Your task to perform on an android device: change your default location settings in chrome Image 0: 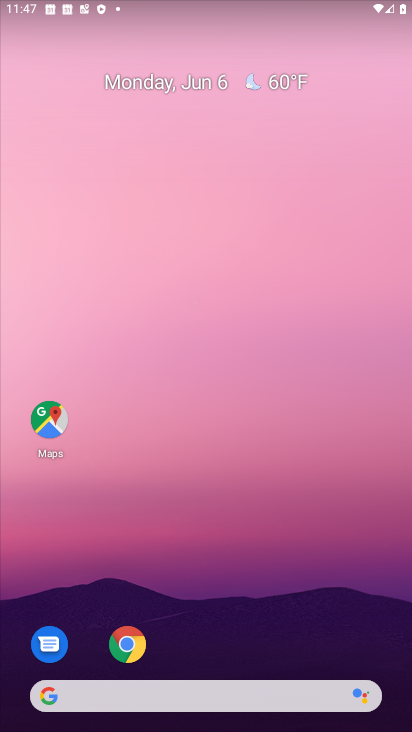
Step 0: drag from (205, 612) to (289, 28)
Your task to perform on an android device: change your default location settings in chrome Image 1: 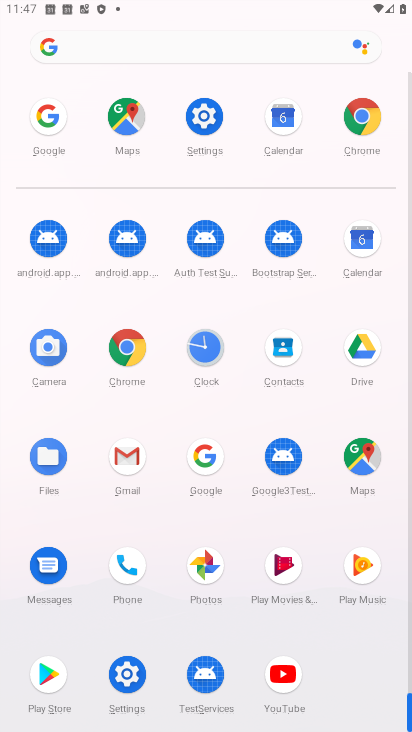
Step 1: click (365, 129)
Your task to perform on an android device: change your default location settings in chrome Image 2: 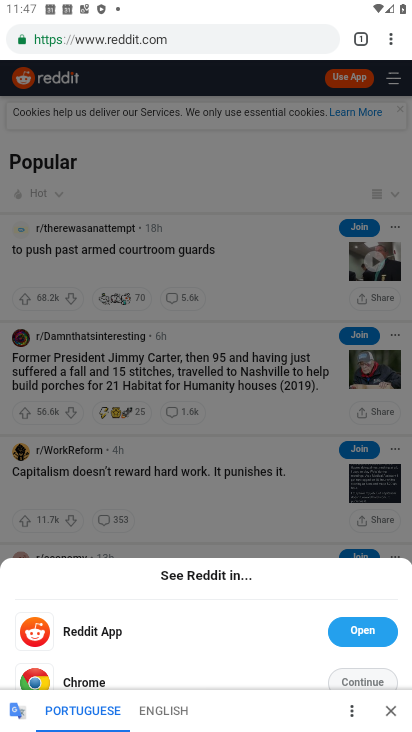
Step 2: click (386, 44)
Your task to perform on an android device: change your default location settings in chrome Image 3: 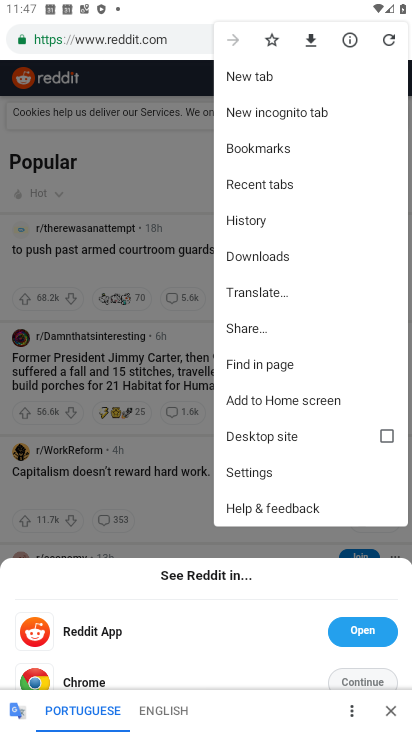
Step 3: click (262, 476)
Your task to perform on an android device: change your default location settings in chrome Image 4: 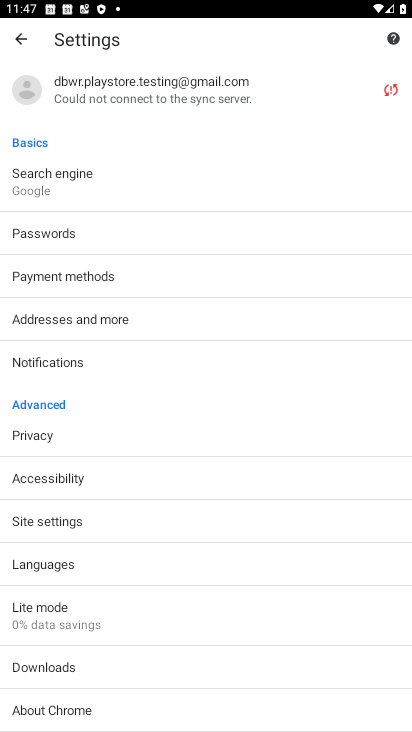
Step 4: click (89, 518)
Your task to perform on an android device: change your default location settings in chrome Image 5: 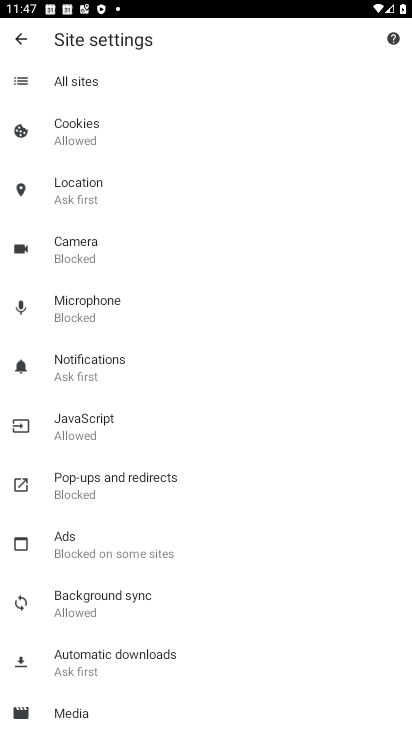
Step 5: click (65, 184)
Your task to perform on an android device: change your default location settings in chrome Image 6: 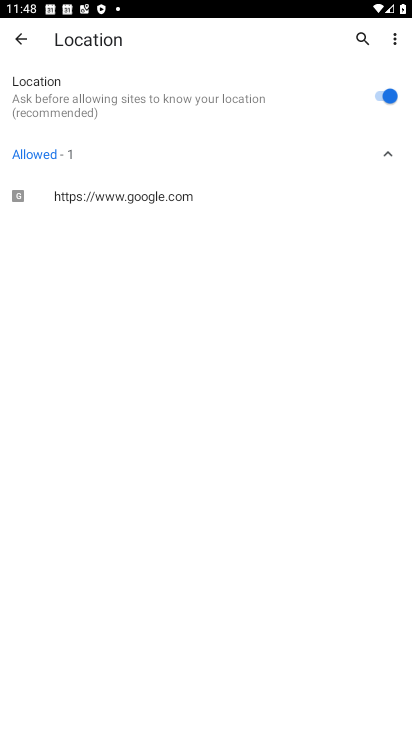
Step 6: click (384, 102)
Your task to perform on an android device: change your default location settings in chrome Image 7: 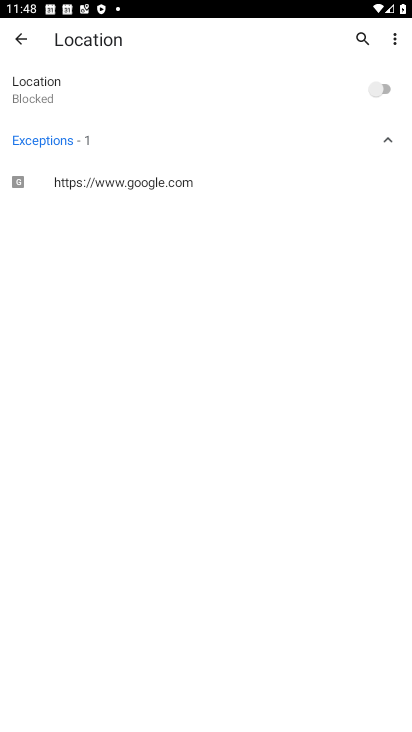
Step 7: task complete